Your task to perform on an android device: toggle location history Image 0: 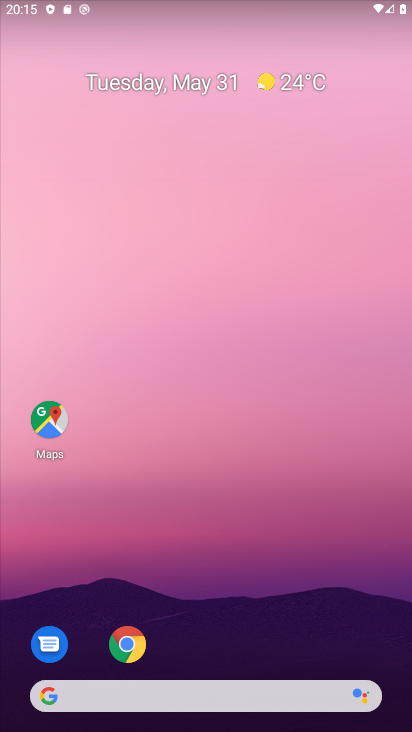
Step 0: drag from (372, 611) to (314, 235)
Your task to perform on an android device: toggle location history Image 1: 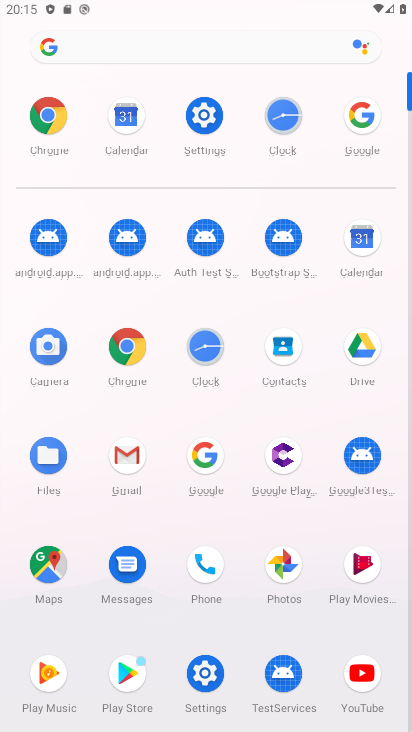
Step 1: click (203, 683)
Your task to perform on an android device: toggle location history Image 2: 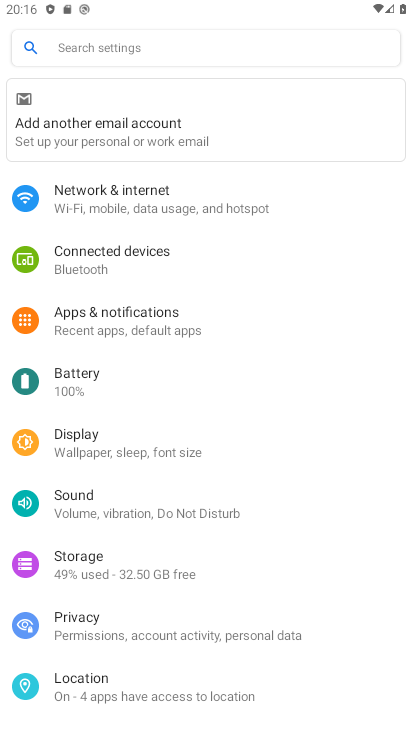
Step 2: click (141, 683)
Your task to perform on an android device: toggle location history Image 3: 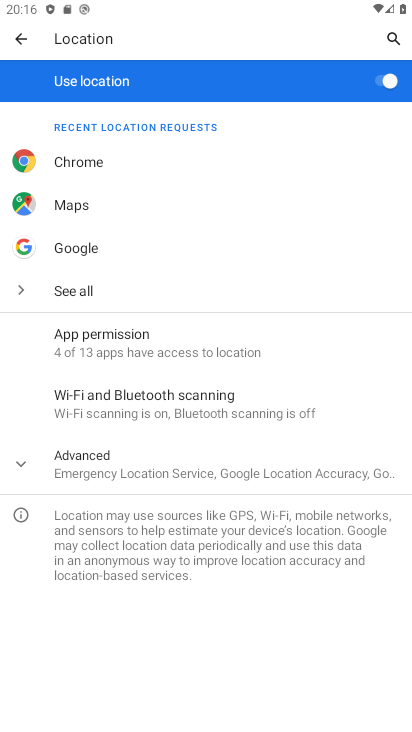
Step 3: click (204, 468)
Your task to perform on an android device: toggle location history Image 4: 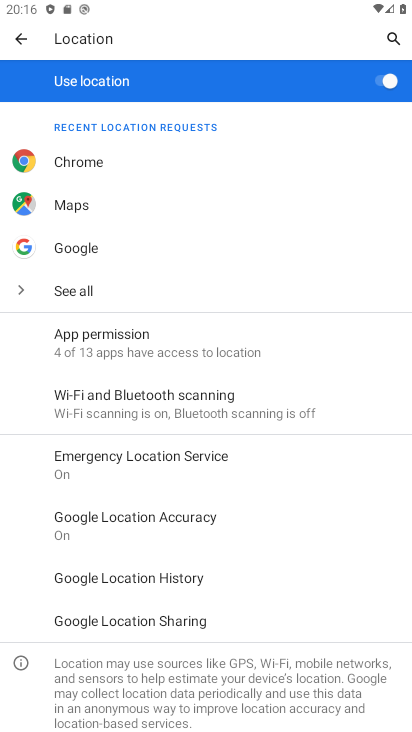
Step 4: click (172, 580)
Your task to perform on an android device: toggle location history Image 5: 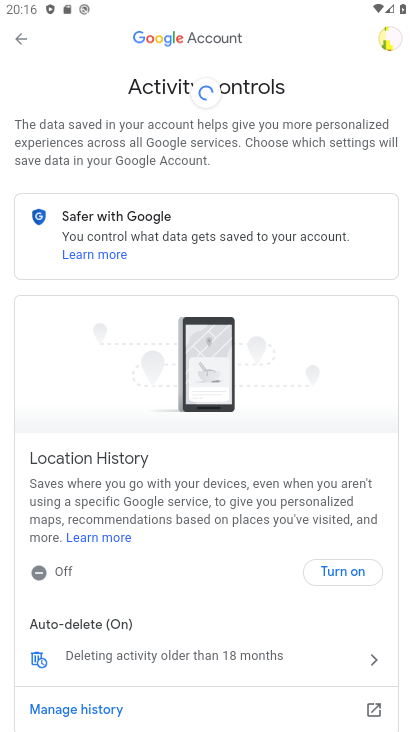
Step 5: drag from (185, 616) to (195, 357)
Your task to perform on an android device: toggle location history Image 6: 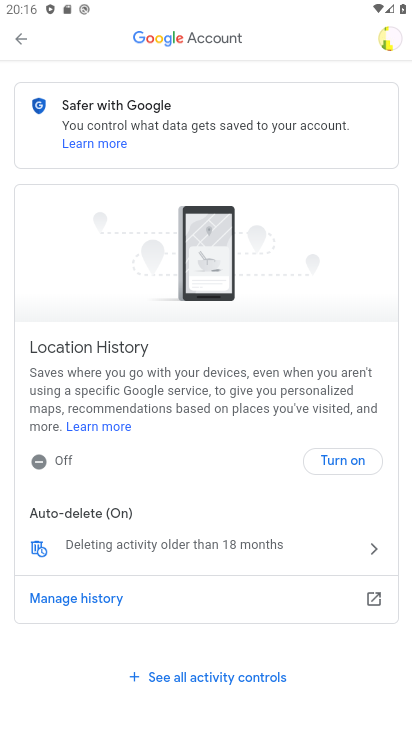
Step 6: drag from (170, 621) to (201, 450)
Your task to perform on an android device: toggle location history Image 7: 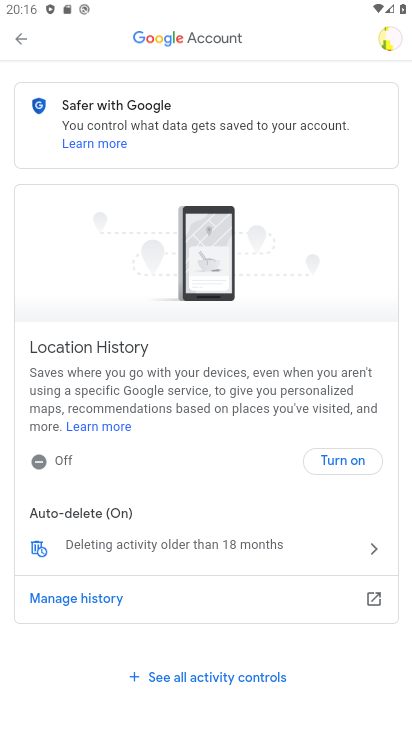
Step 7: click (107, 604)
Your task to perform on an android device: toggle location history Image 8: 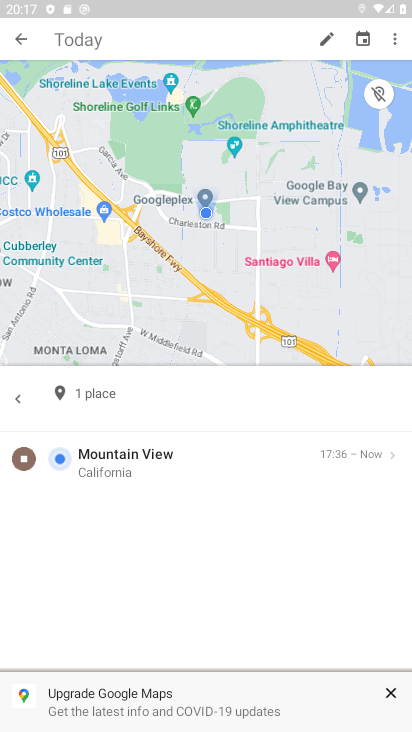
Step 8: click (394, 44)
Your task to perform on an android device: toggle location history Image 9: 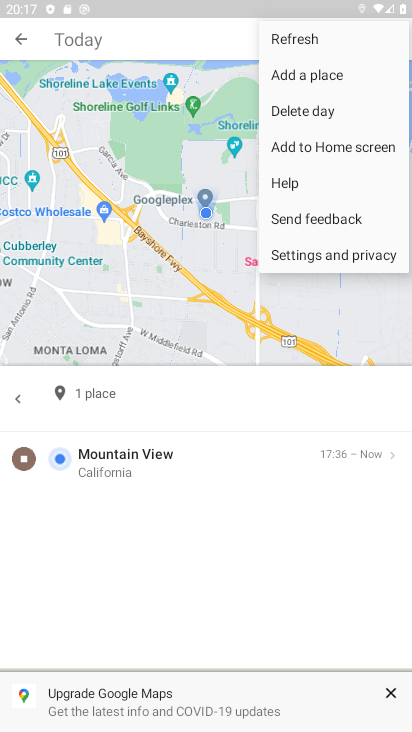
Step 9: click (289, 255)
Your task to perform on an android device: toggle location history Image 10: 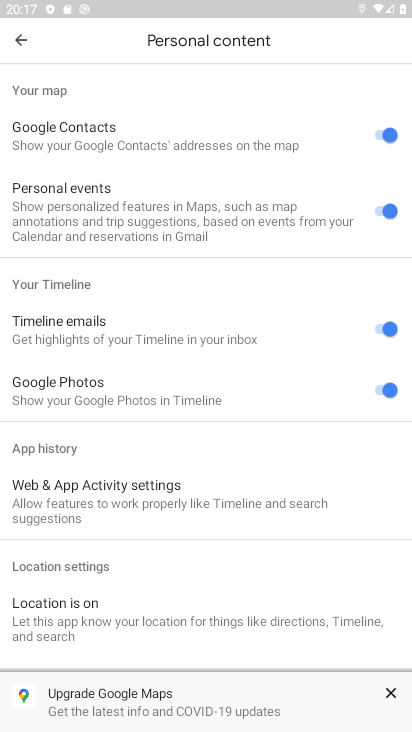
Step 10: drag from (202, 601) to (202, 358)
Your task to perform on an android device: toggle location history Image 11: 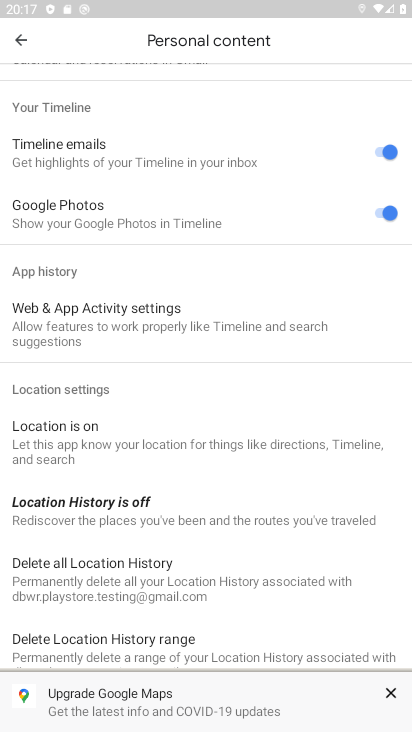
Step 11: click (154, 441)
Your task to perform on an android device: toggle location history Image 12: 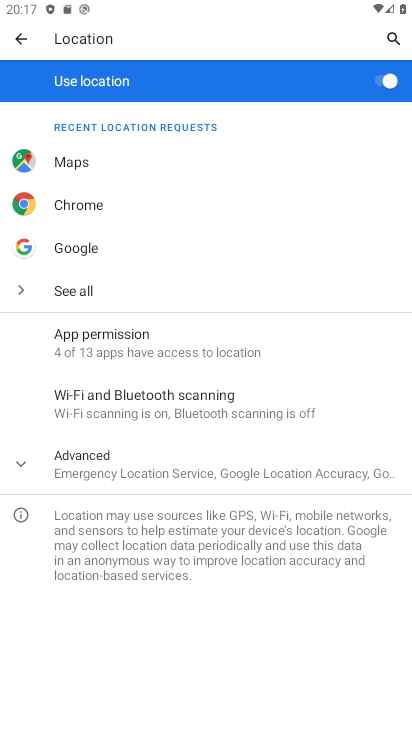
Step 12: click (371, 80)
Your task to perform on an android device: toggle location history Image 13: 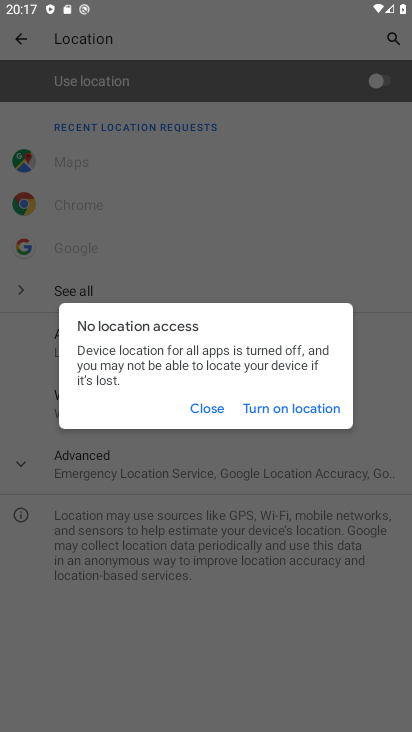
Step 13: task complete